Your task to perform on an android device: turn off javascript in the chrome app Image 0: 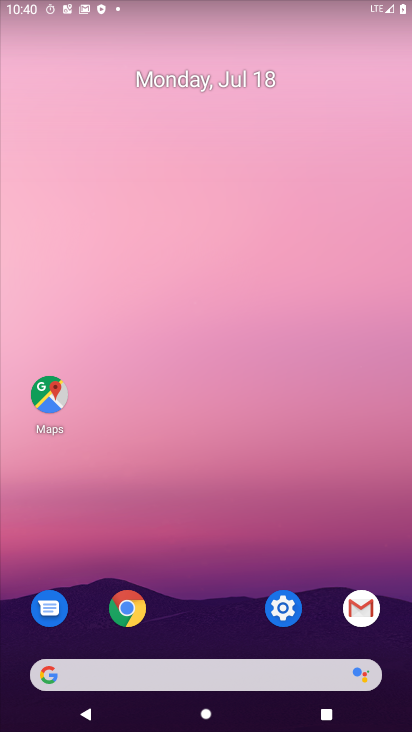
Step 0: click (122, 603)
Your task to perform on an android device: turn off javascript in the chrome app Image 1: 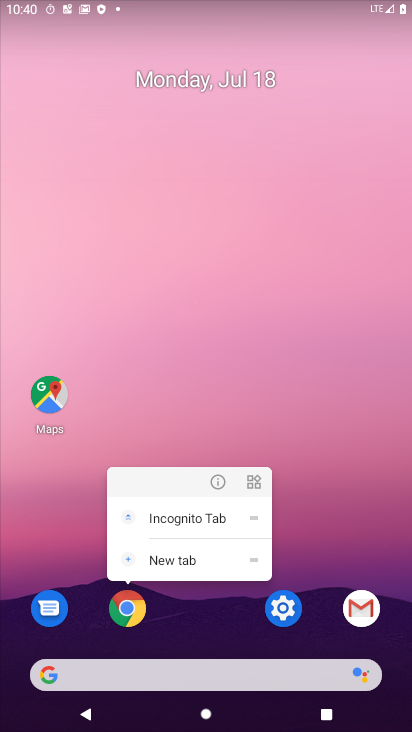
Step 1: click (131, 606)
Your task to perform on an android device: turn off javascript in the chrome app Image 2: 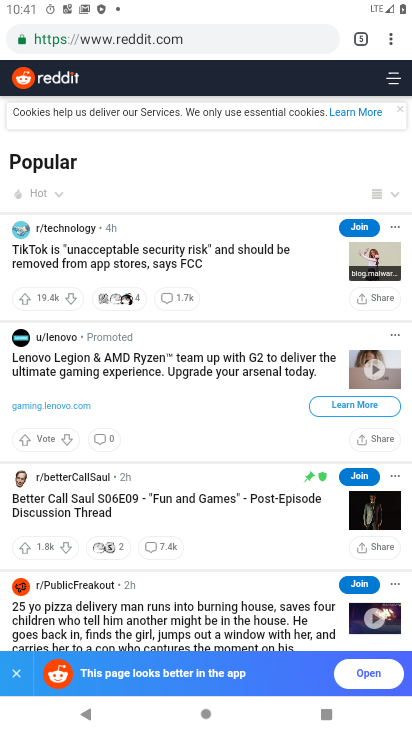
Step 2: click (388, 48)
Your task to perform on an android device: turn off javascript in the chrome app Image 3: 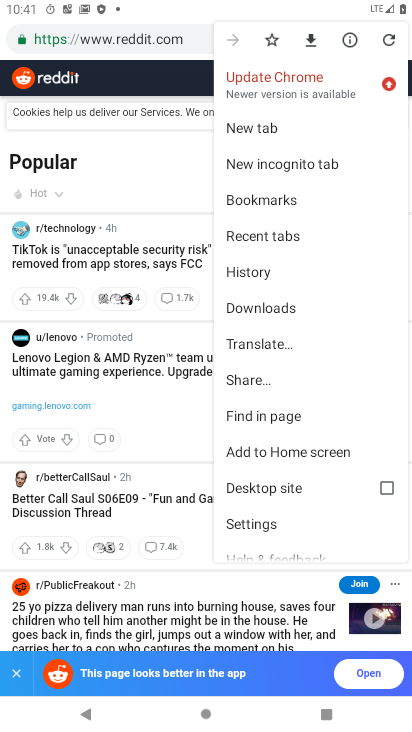
Step 3: click (262, 521)
Your task to perform on an android device: turn off javascript in the chrome app Image 4: 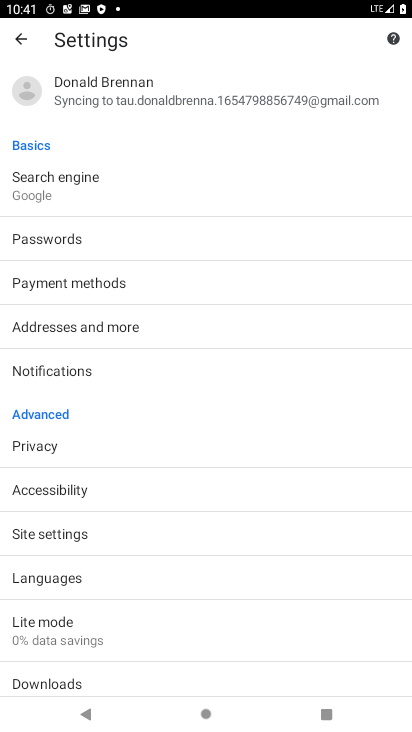
Step 4: click (65, 536)
Your task to perform on an android device: turn off javascript in the chrome app Image 5: 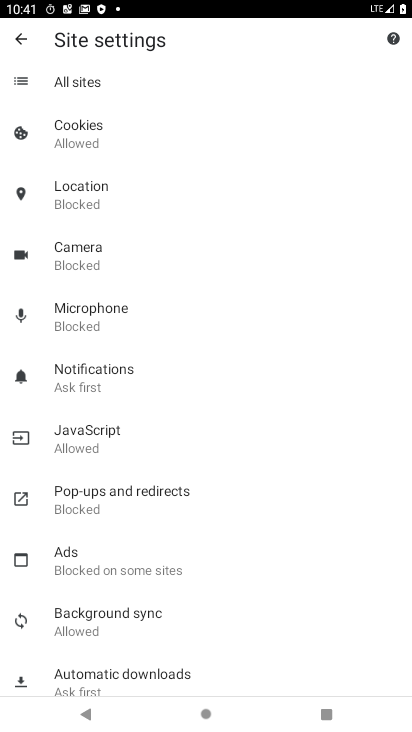
Step 5: click (86, 443)
Your task to perform on an android device: turn off javascript in the chrome app Image 6: 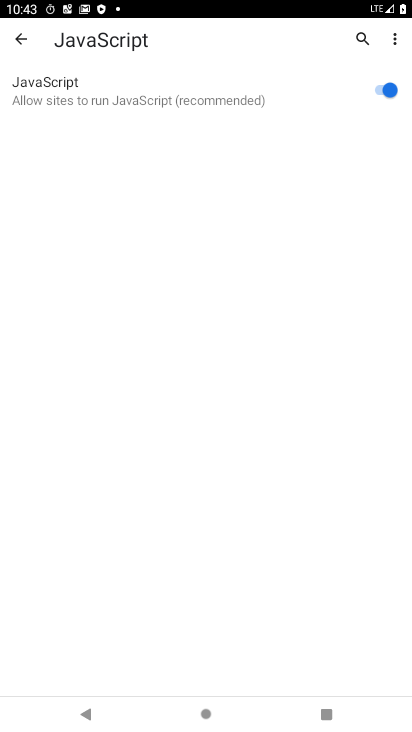
Step 6: task complete